Your task to perform on an android device: Go to Google Image 0: 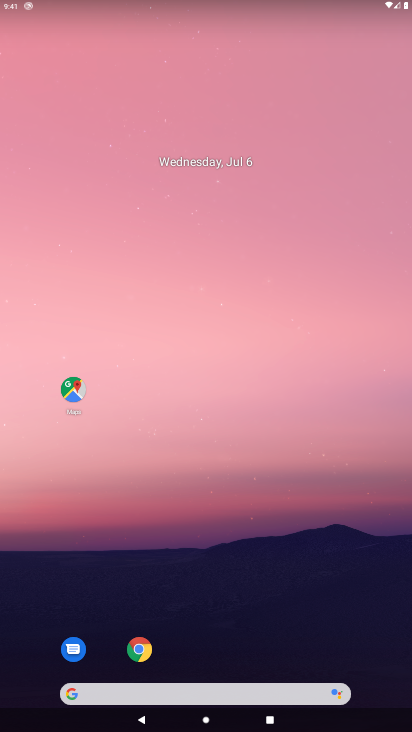
Step 0: drag from (215, 629) to (273, 140)
Your task to perform on an android device: Go to Google Image 1: 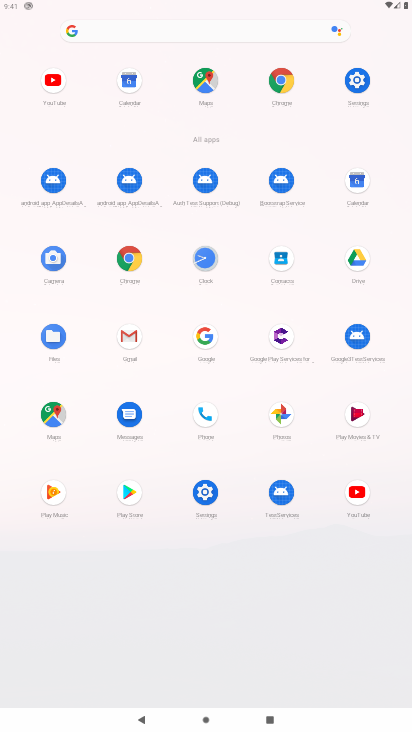
Step 1: click (202, 327)
Your task to perform on an android device: Go to Google Image 2: 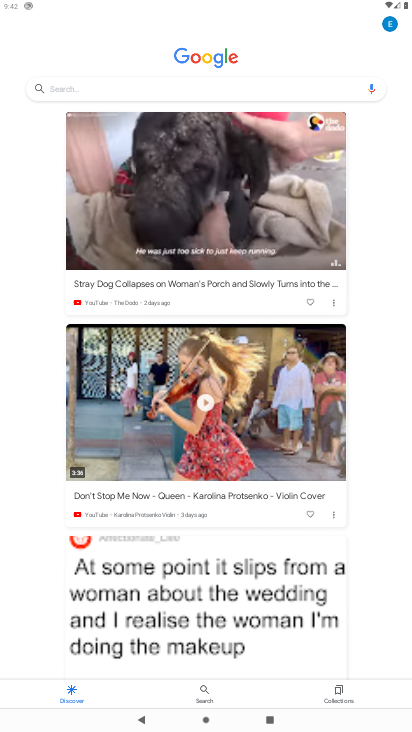
Step 2: task complete